Your task to perform on an android device: show emergency info Image 0: 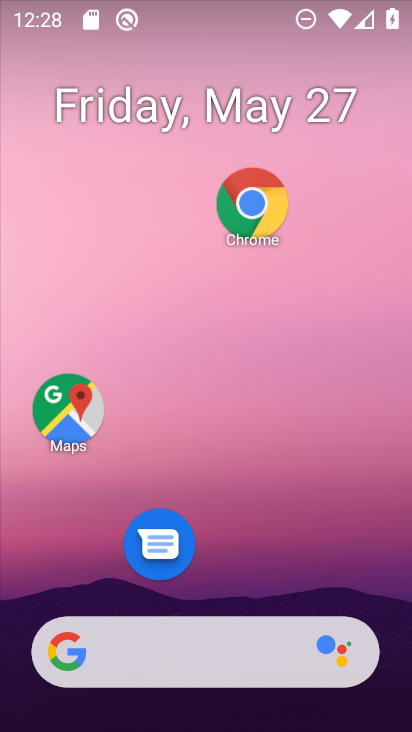
Step 0: drag from (216, 582) to (186, 207)
Your task to perform on an android device: show emergency info Image 1: 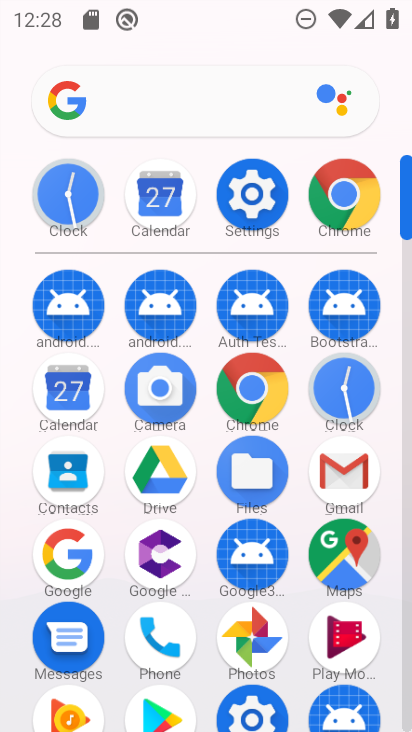
Step 1: click (271, 190)
Your task to perform on an android device: show emergency info Image 2: 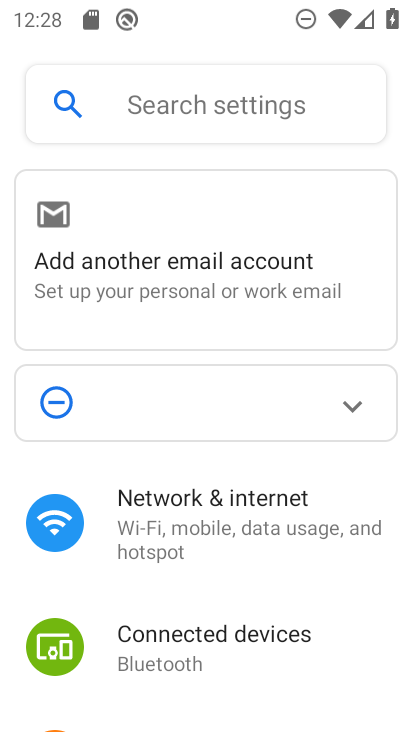
Step 2: drag from (259, 616) to (236, 65)
Your task to perform on an android device: show emergency info Image 3: 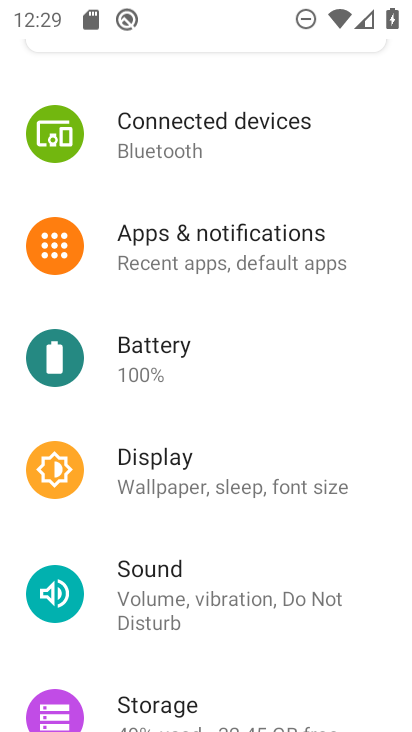
Step 3: drag from (239, 619) to (297, 108)
Your task to perform on an android device: show emergency info Image 4: 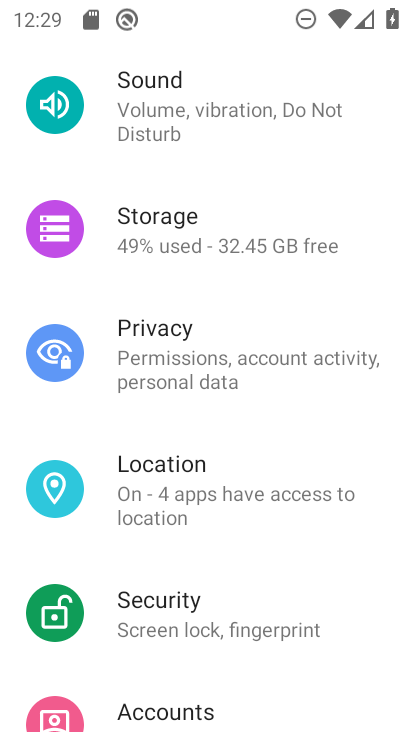
Step 4: drag from (263, 610) to (135, 27)
Your task to perform on an android device: show emergency info Image 5: 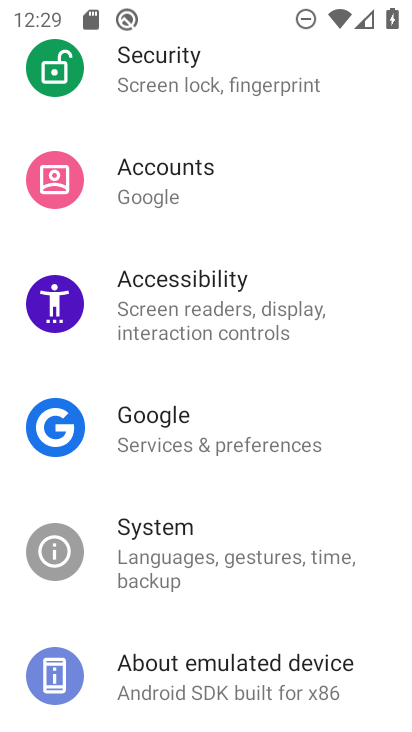
Step 5: drag from (233, 659) to (255, 1)
Your task to perform on an android device: show emergency info Image 6: 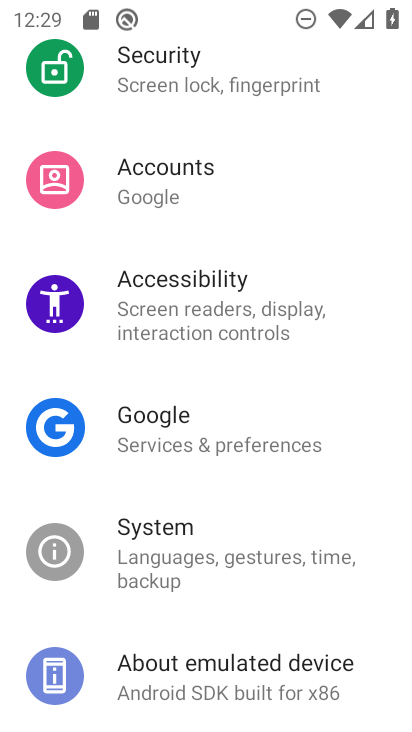
Step 6: click (232, 676)
Your task to perform on an android device: show emergency info Image 7: 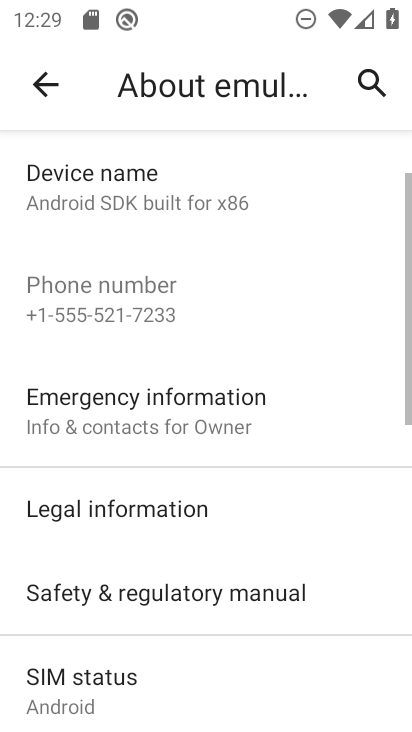
Step 7: click (197, 412)
Your task to perform on an android device: show emergency info Image 8: 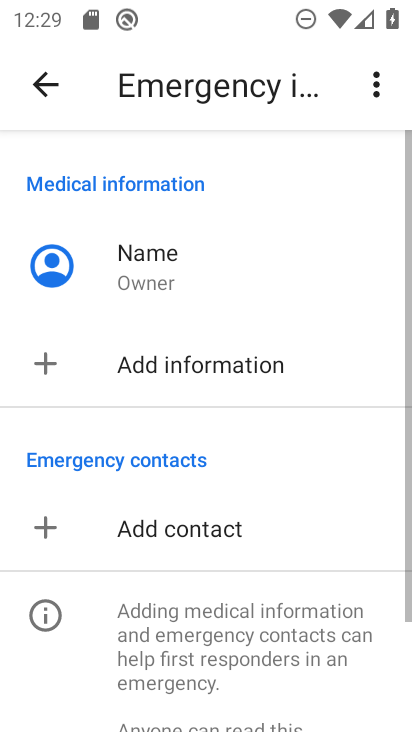
Step 8: task complete